Your task to perform on an android device: empty trash in the gmail app Image 0: 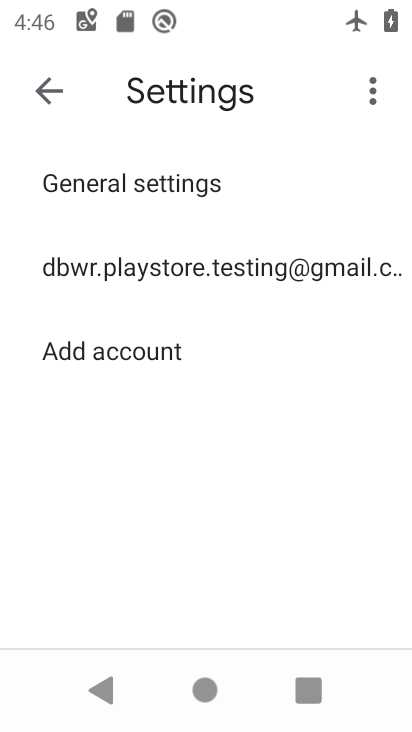
Step 0: press home button
Your task to perform on an android device: empty trash in the gmail app Image 1: 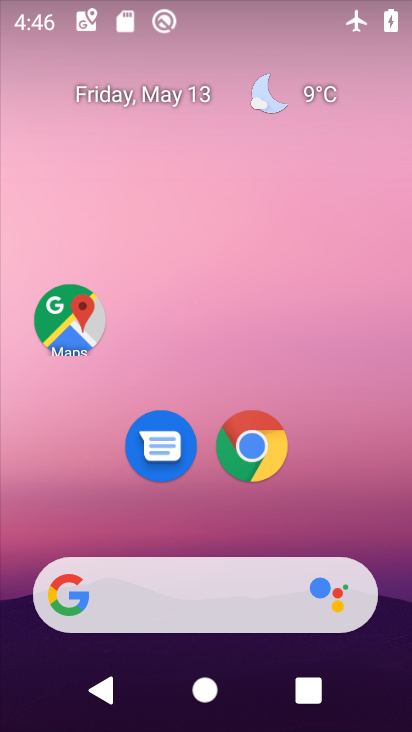
Step 1: click (62, 302)
Your task to perform on an android device: empty trash in the gmail app Image 2: 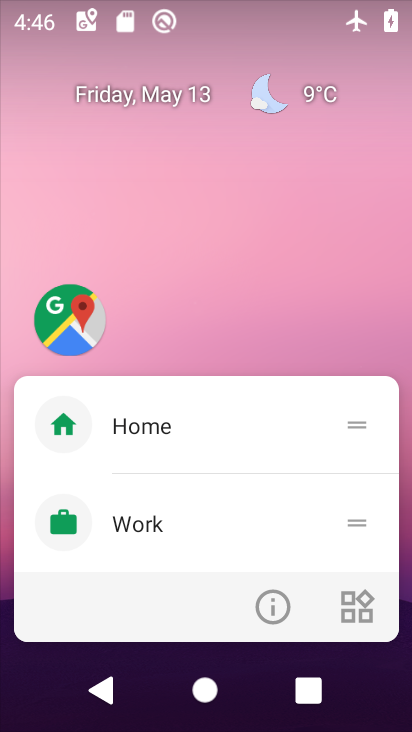
Step 2: click (258, 314)
Your task to perform on an android device: empty trash in the gmail app Image 3: 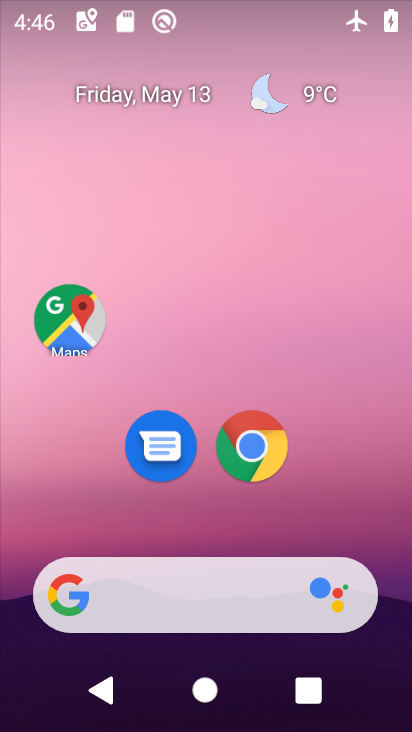
Step 3: drag from (256, 488) to (217, 0)
Your task to perform on an android device: empty trash in the gmail app Image 4: 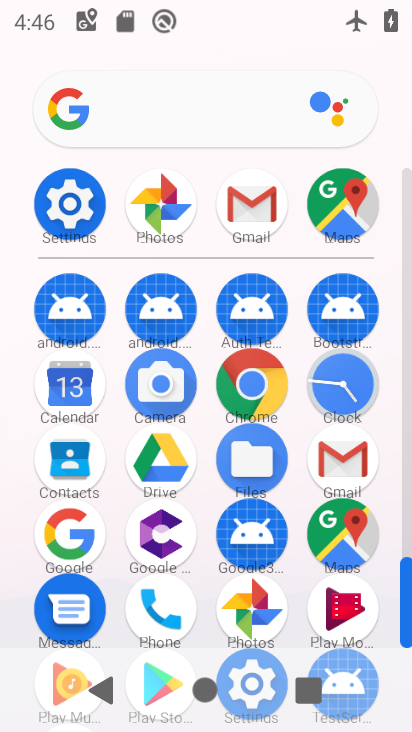
Step 4: click (262, 617)
Your task to perform on an android device: empty trash in the gmail app Image 5: 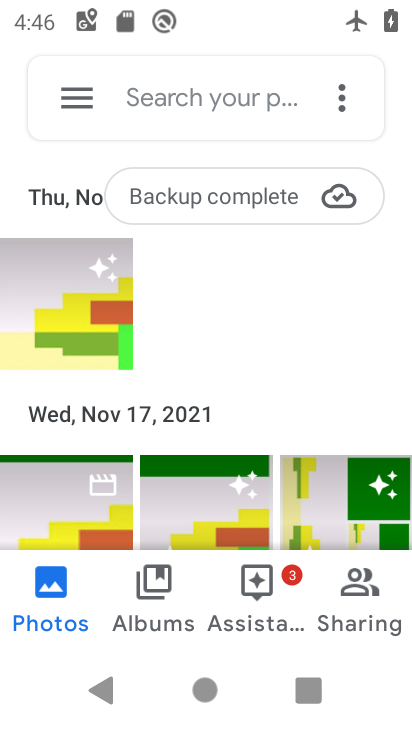
Step 5: click (73, 112)
Your task to perform on an android device: empty trash in the gmail app Image 6: 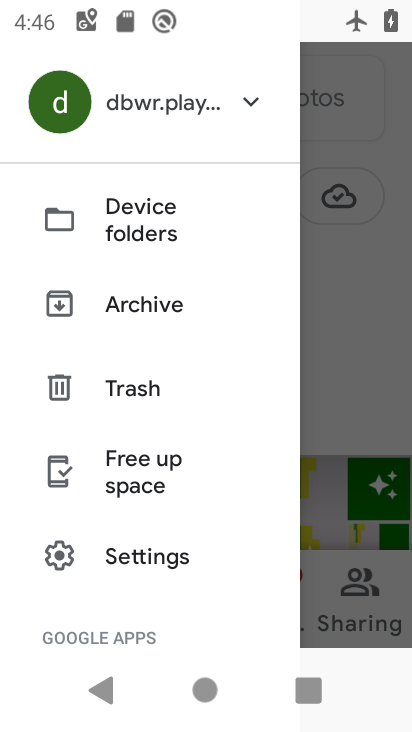
Step 6: click (130, 394)
Your task to perform on an android device: empty trash in the gmail app Image 7: 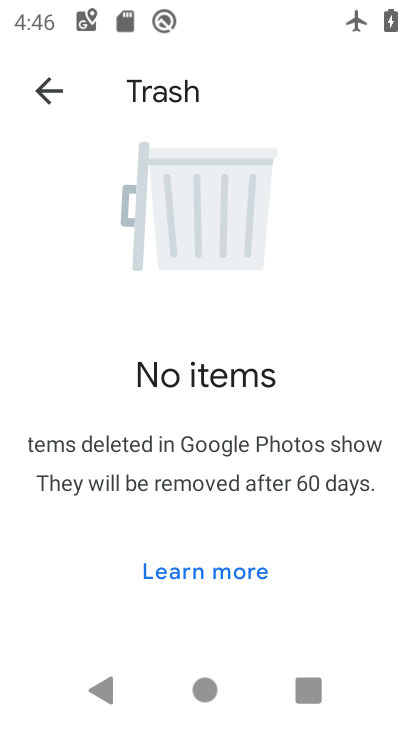
Step 7: task complete